Your task to perform on an android device: Open location settings Image 0: 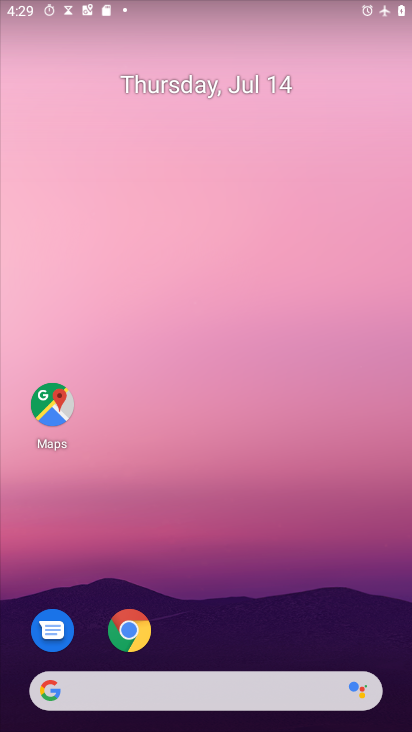
Step 0: drag from (219, 719) to (219, 107)
Your task to perform on an android device: Open location settings Image 1: 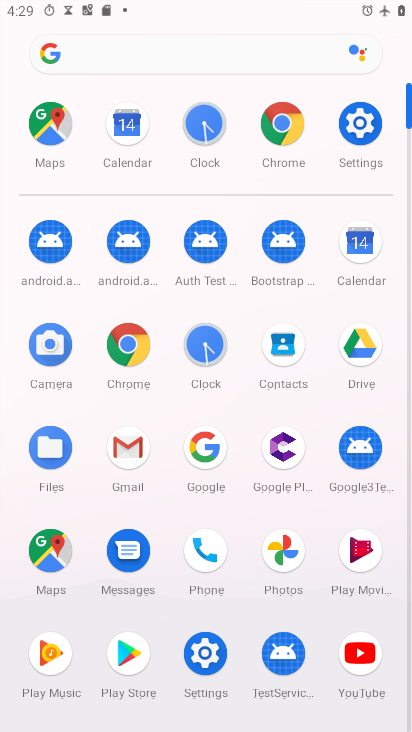
Step 1: click (370, 120)
Your task to perform on an android device: Open location settings Image 2: 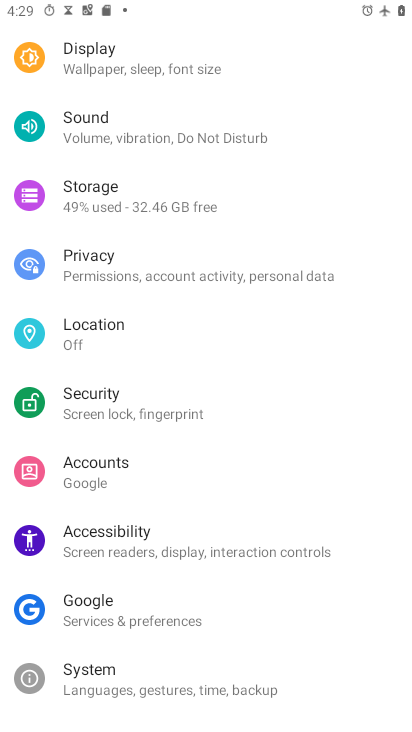
Step 2: click (76, 334)
Your task to perform on an android device: Open location settings Image 3: 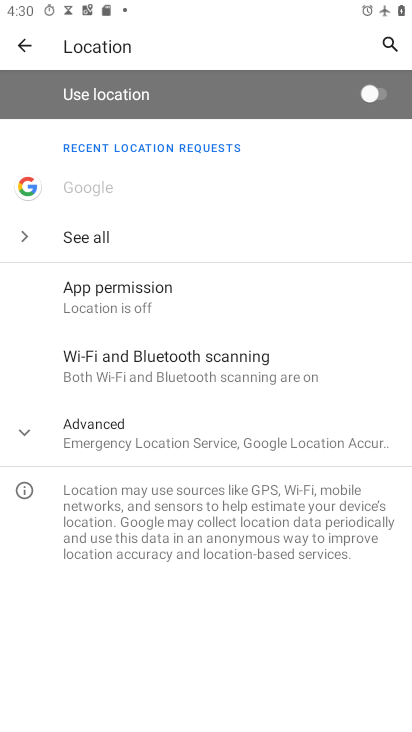
Step 3: task complete